Your task to perform on an android device: Go to accessibility settings Image 0: 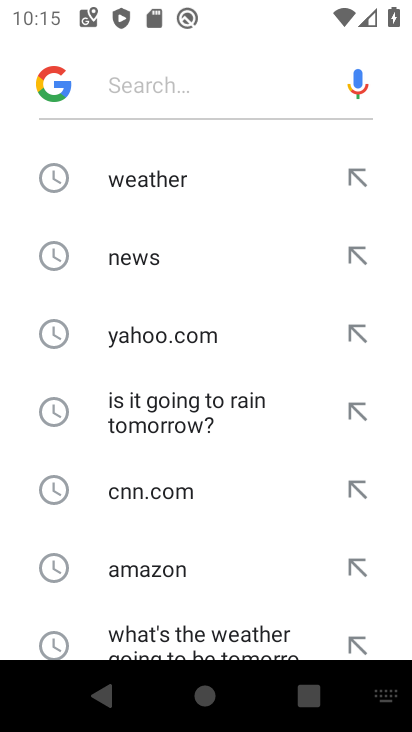
Step 0: press back button
Your task to perform on an android device: Go to accessibility settings Image 1: 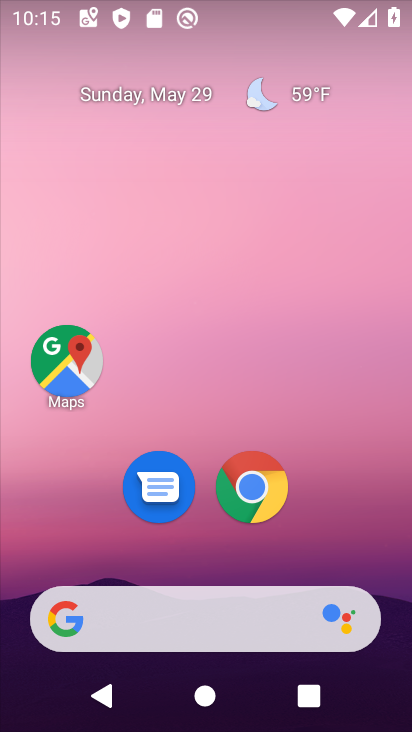
Step 1: drag from (384, 665) to (343, 104)
Your task to perform on an android device: Go to accessibility settings Image 2: 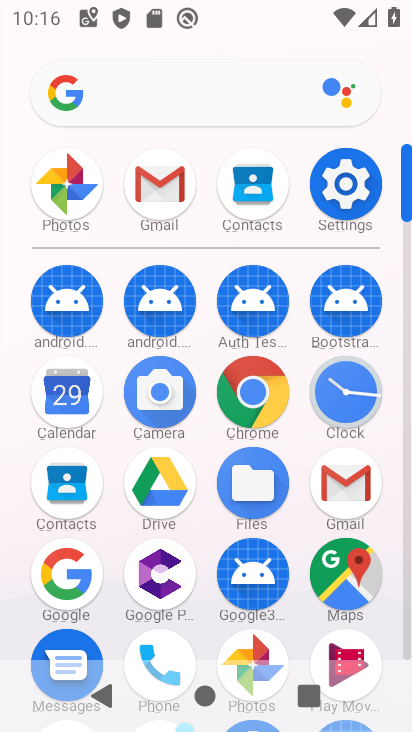
Step 2: click (360, 148)
Your task to perform on an android device: Go to accessibility settings Image 3: 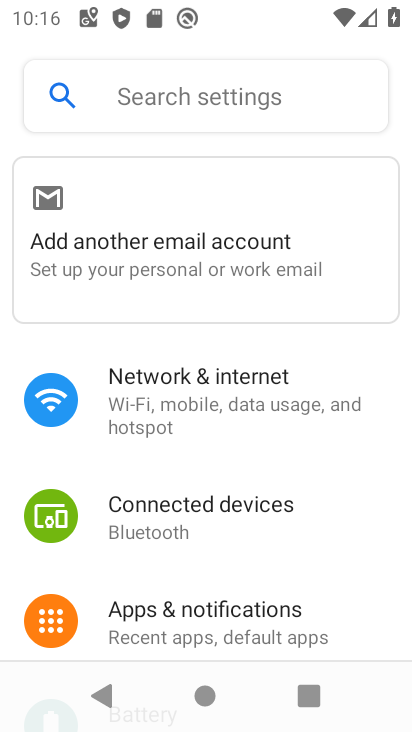
Step 3: drag from (329, 640) to (308, 178)
Your task to perform on an android device: Go to accessibility settings Image 4: 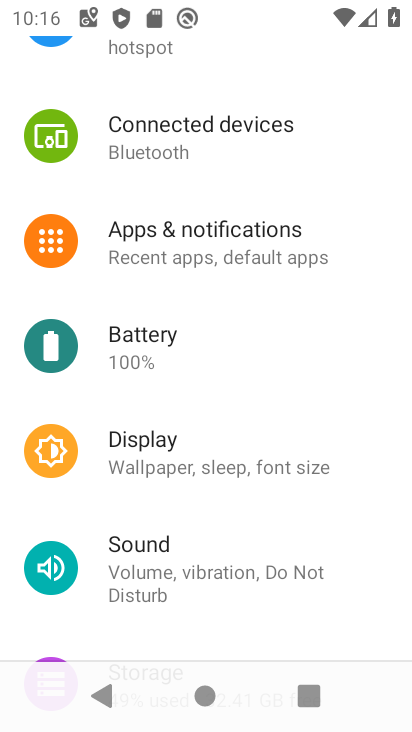
Step 4: drag from (319, 597) to (312, 143)
Your task to perform on an android device: Go to accessibility settings Image 5: 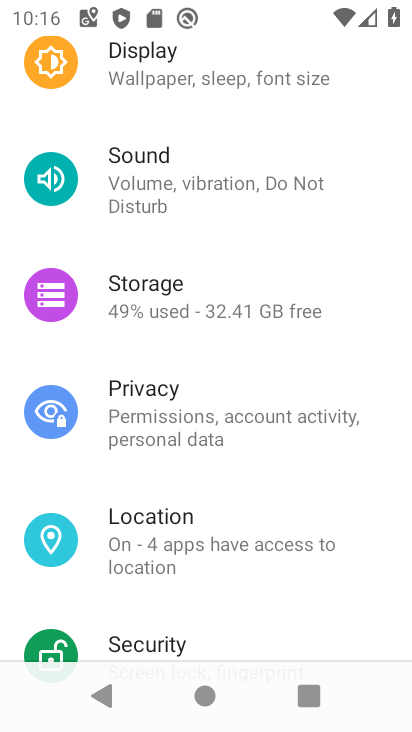
Step 5: drag from (295, 617) to (257, 215)
Your task to perform on an android device: Go to accessibility settings Image 6: 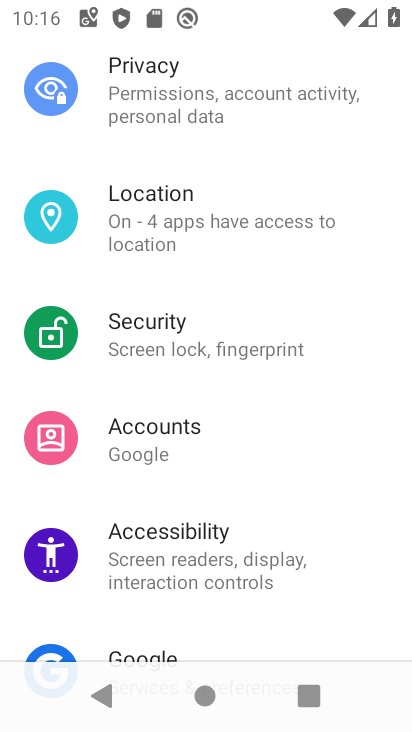
Step 6: click (135, 540)
Your task to perform on an android device: Go to accessibility settings Image 7: 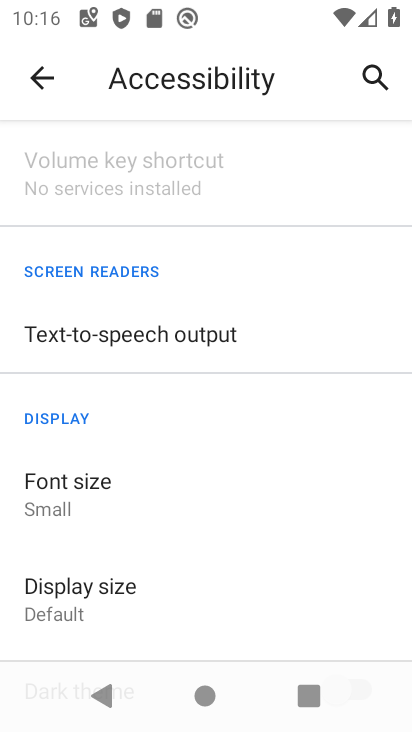
Step 7: task complete